Your task to perform on an android device: change timer sound Image 0: 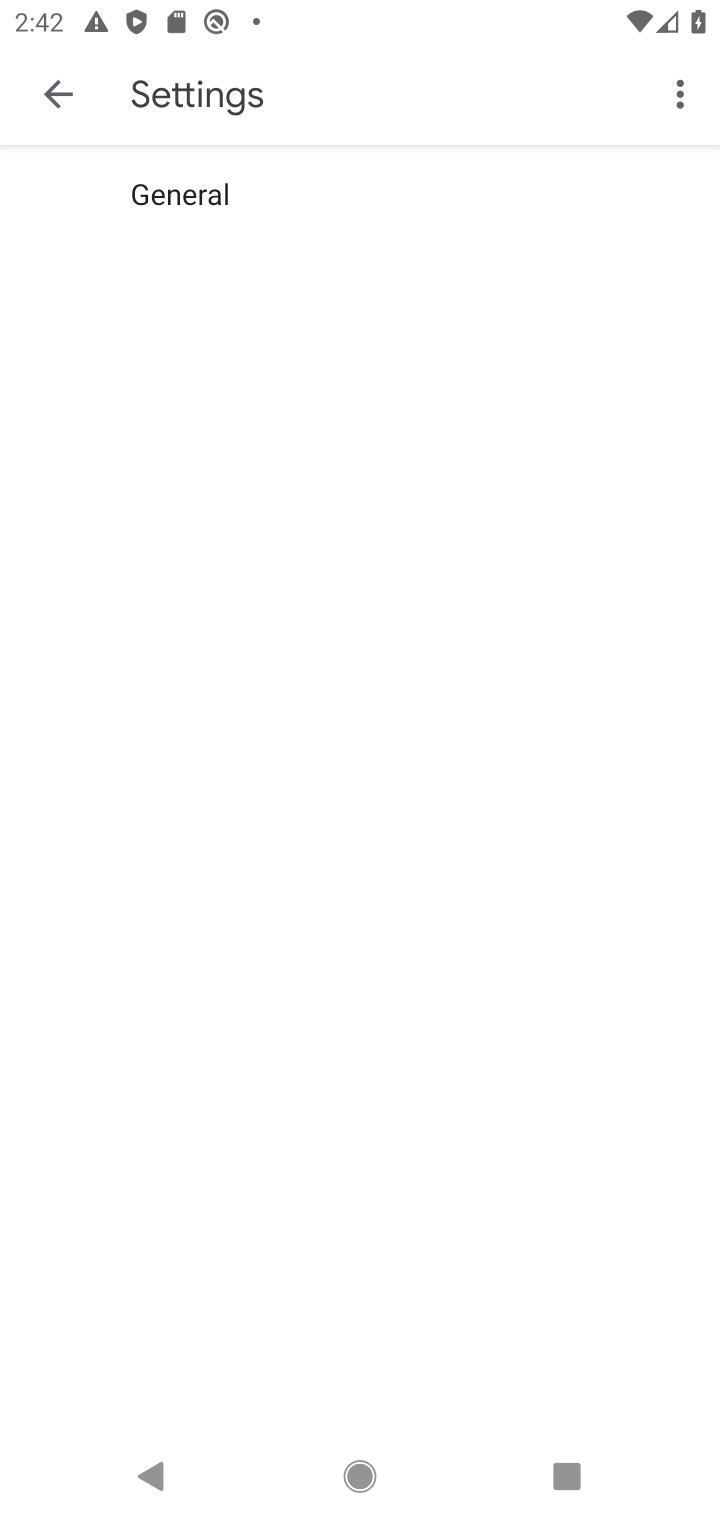
Step 0: press home button
Your task to perform on an android device: change timer sound Image 1: 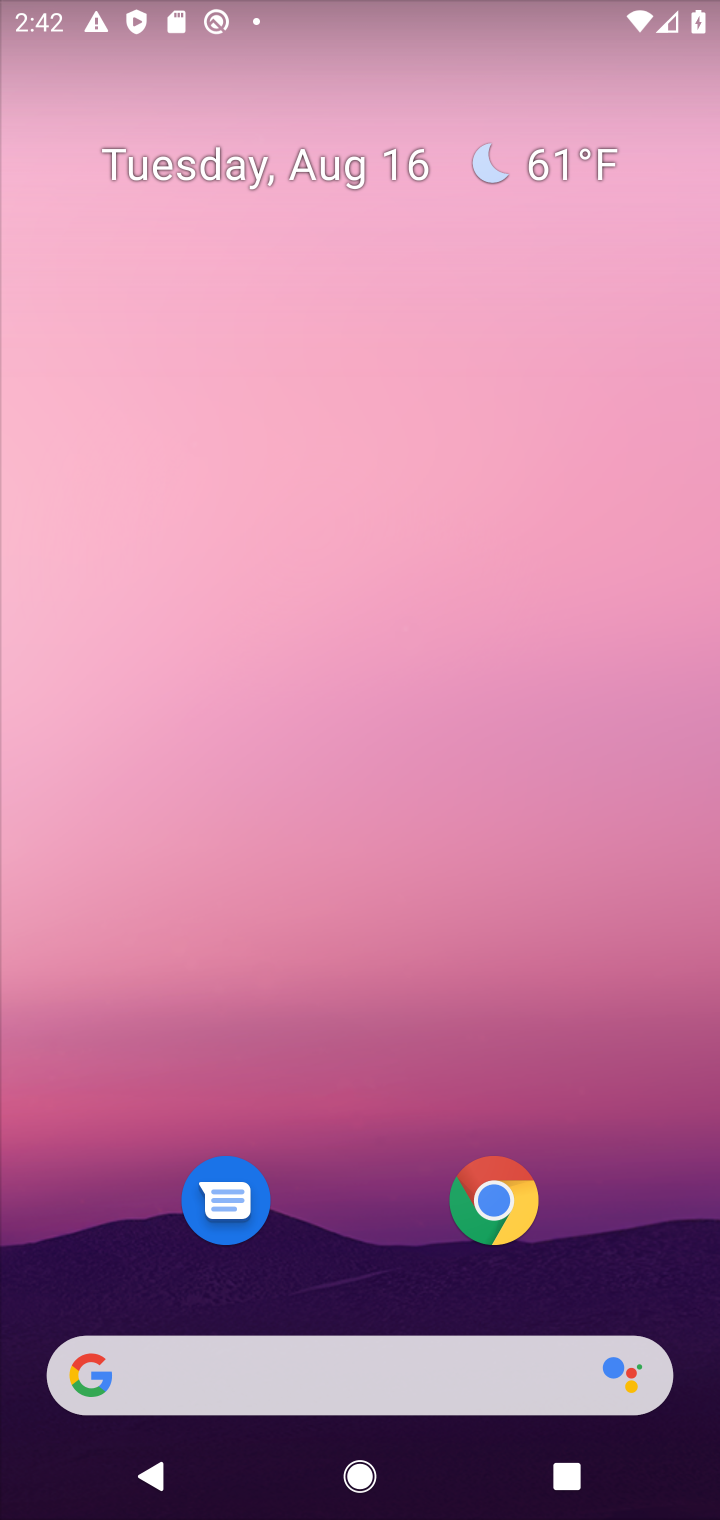
Step 1: task complete